Your task to perform on an android device: Check the news Image 0: 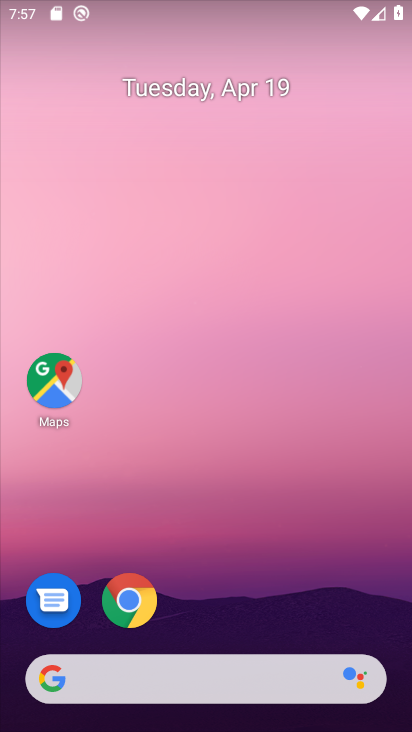
Step 0: drag from (5, 226) to (396, 360)
Your task to perform on an android device: Check the news Image 1: 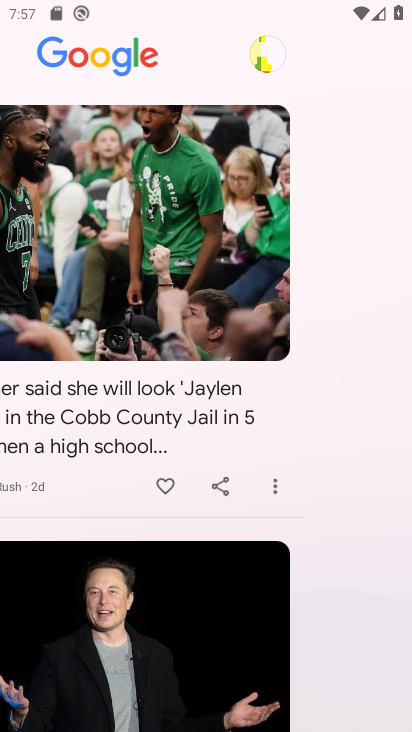
Step 1: task complete